Your task to perform on an android device: Open network settings Image 0: 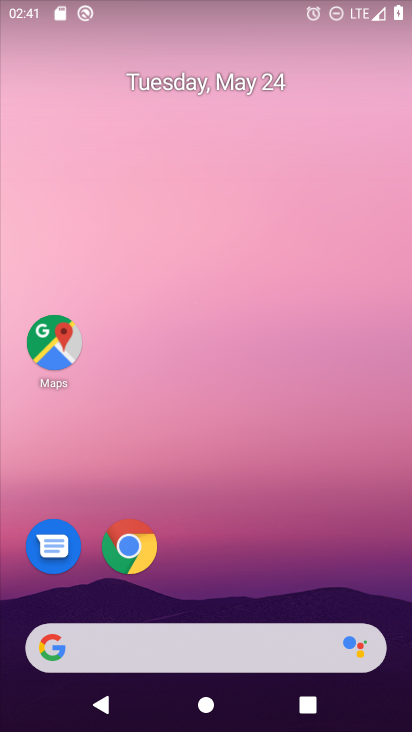
Step 0: drag from (308, 596) to (331, 10)
Your task to perform on an android device: Open network settings Image 1: 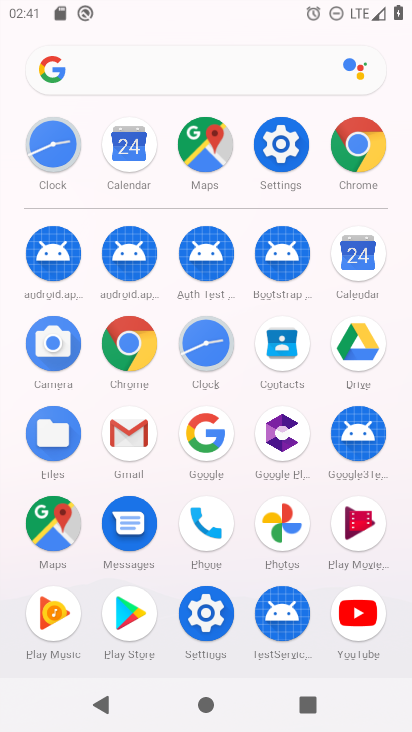
Step 1: click (295, 131)
Your task to perform on an android device: Open network settings Image 2: 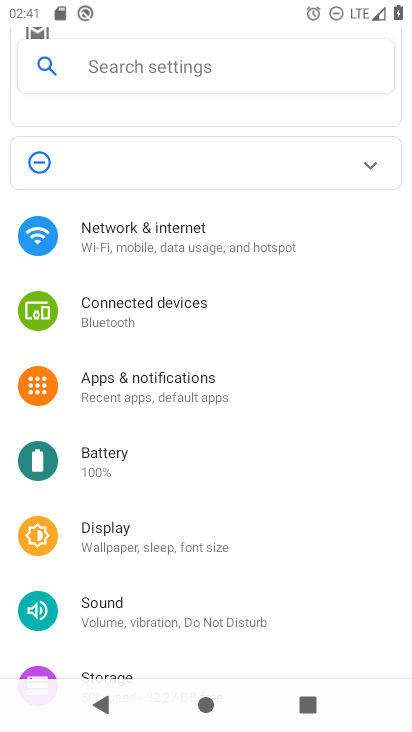
Step 2: click (149, 226)
Your task to perform on an android device: Open network settings Image 3: 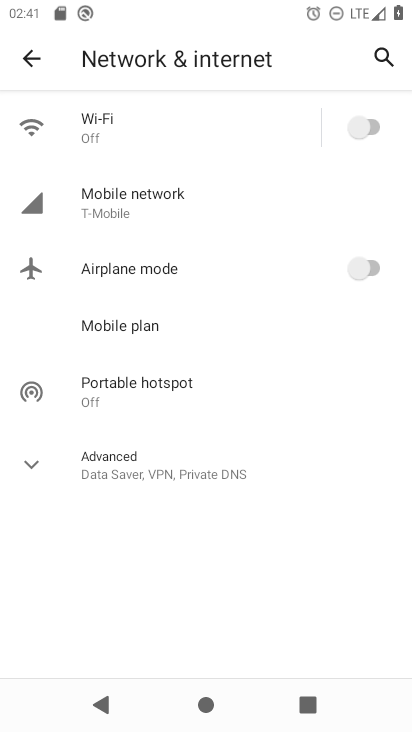
Step 3: click (176, 204)
Your task to perform on an android device: Open network settings Image 4: 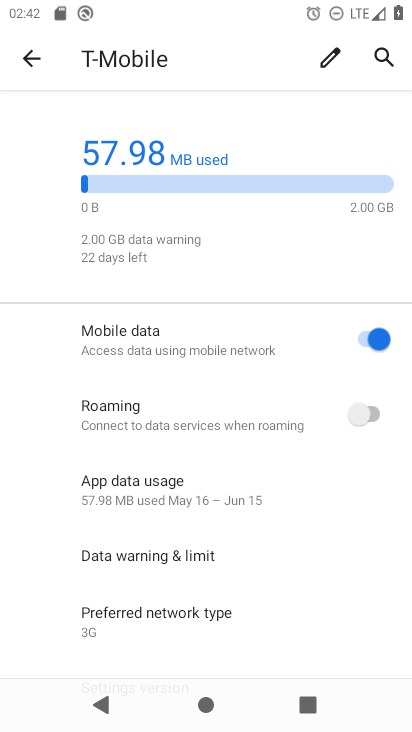
Step 4: task complete